Your task to perform on an android device: Go to Reddit.com Image 0: 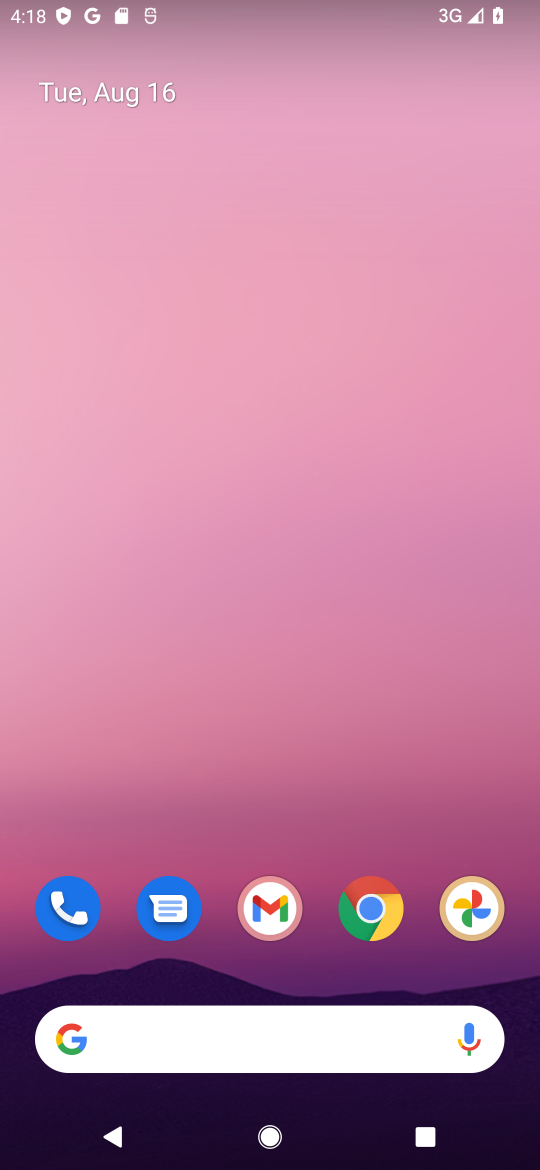
Step 0: click (362, 898)
Your task to perform on an android device: Go to Reddit.com Image 1: 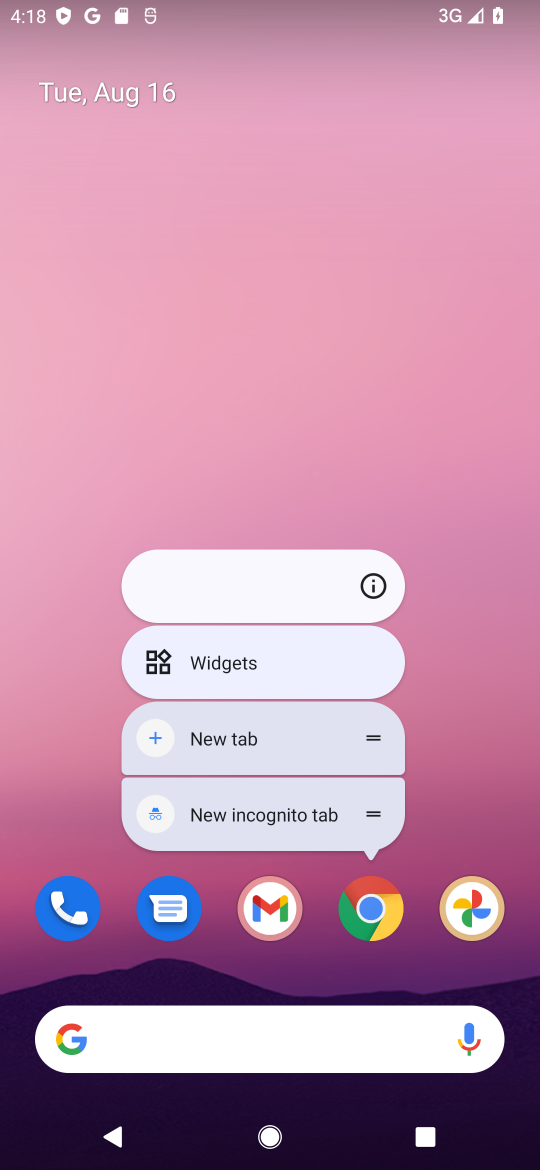
Step 1: click (388, 907)
Your task to perform on an android device: Go to Reddit.com Image 2: 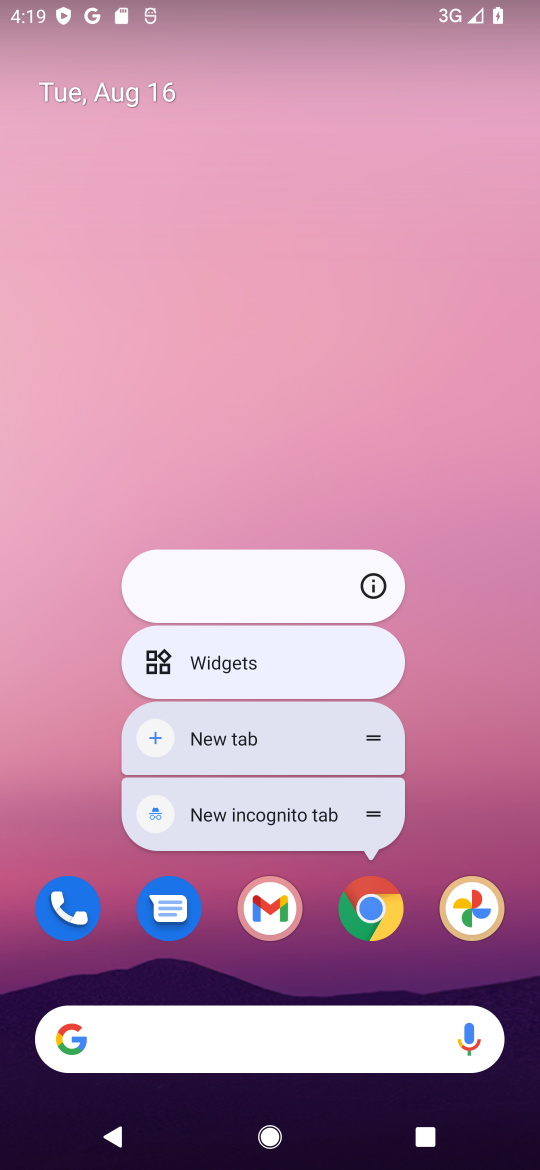
Step 2: click (366, 914)
Your task to perform on an android device: Go to Reddit.com Image 3: 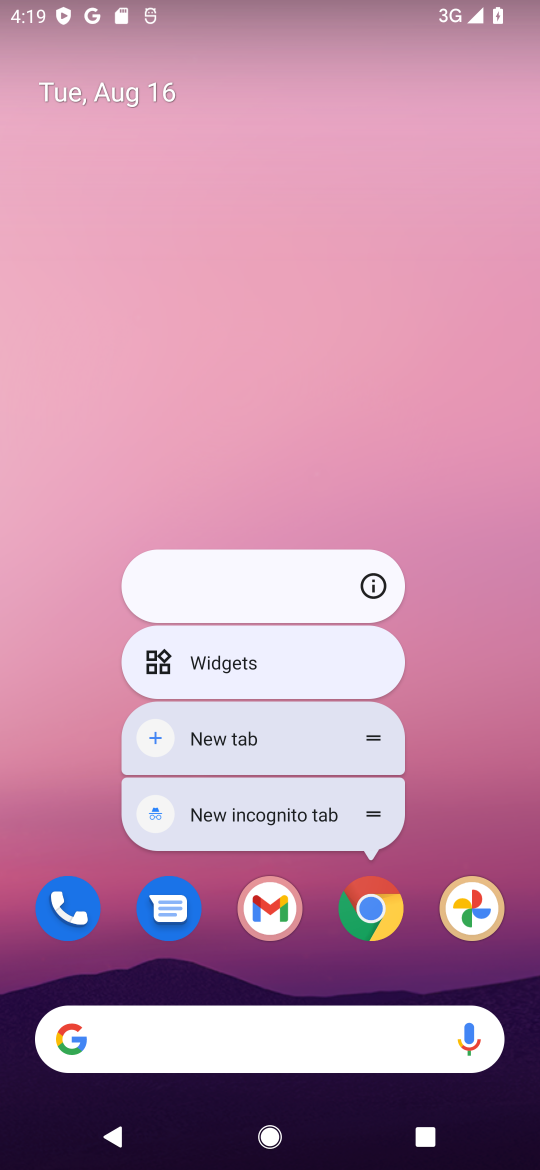
Step 3: click (372, 907)
Your task to perform on an android device: Go to Reddit.com Image 4: 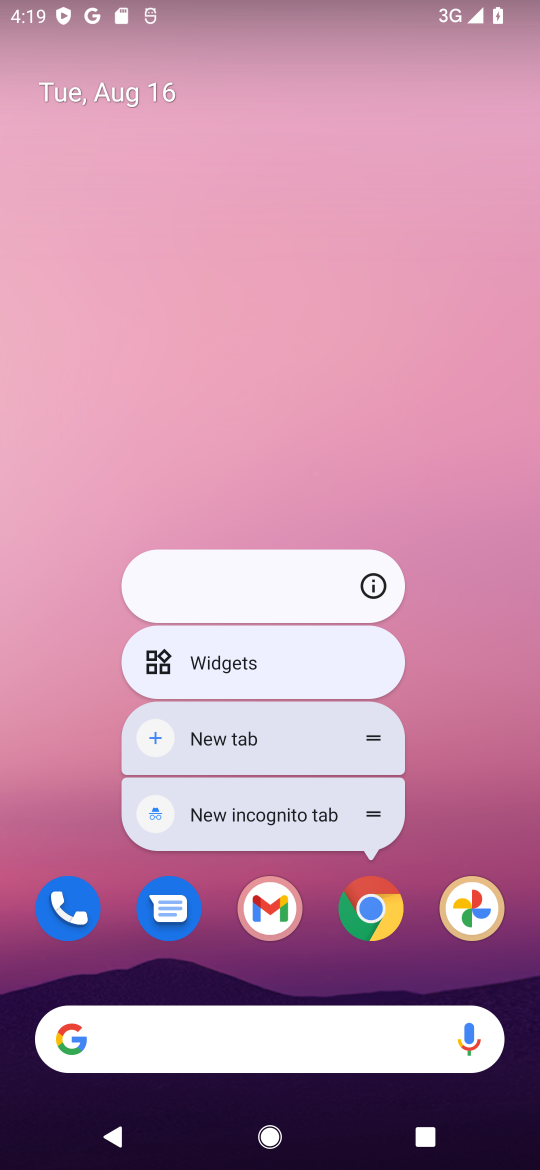
Step 4: click (384, 902)
Your task to perform on an android device: Go to Reddit.com Image 5: 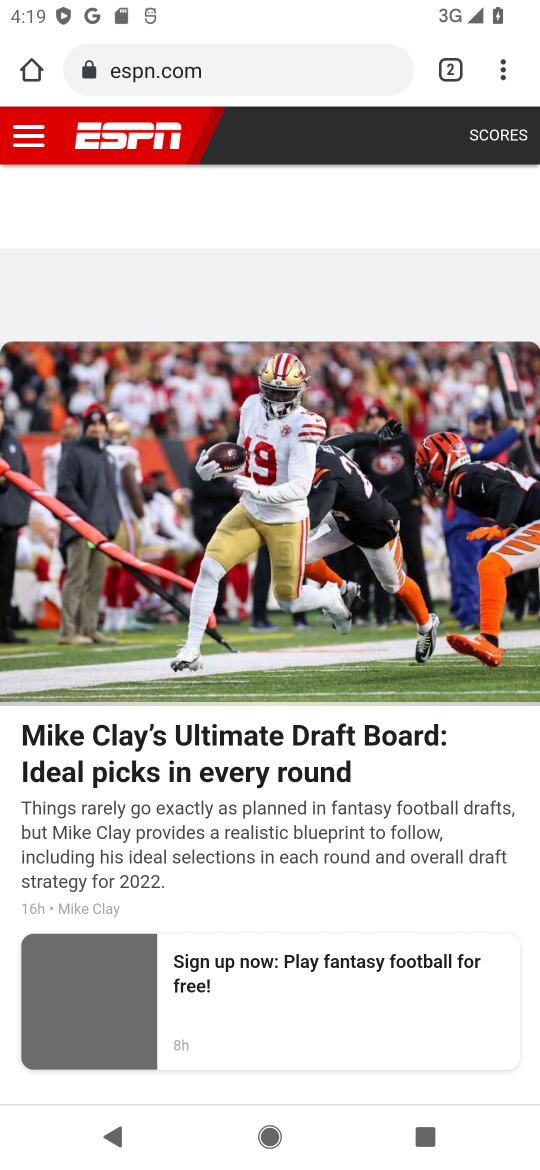
Step 5: click (457, 66)
Your task to perform on an android device: Go to Reddit.com Image 6: 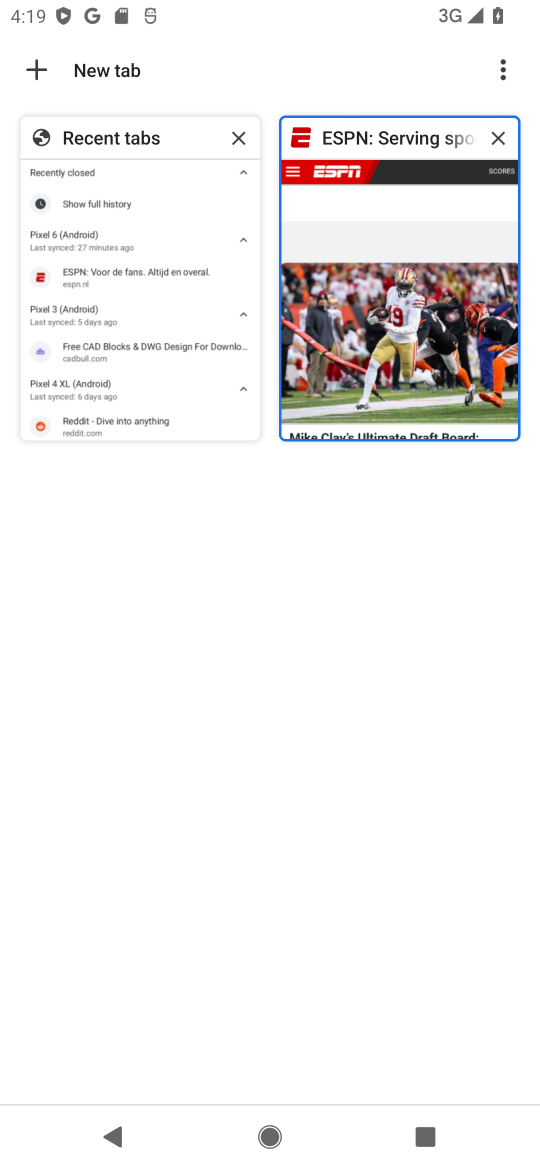
Step 6: click (200, 223)
Your task to perform on an android device: Go to Reddit.com Image 7: 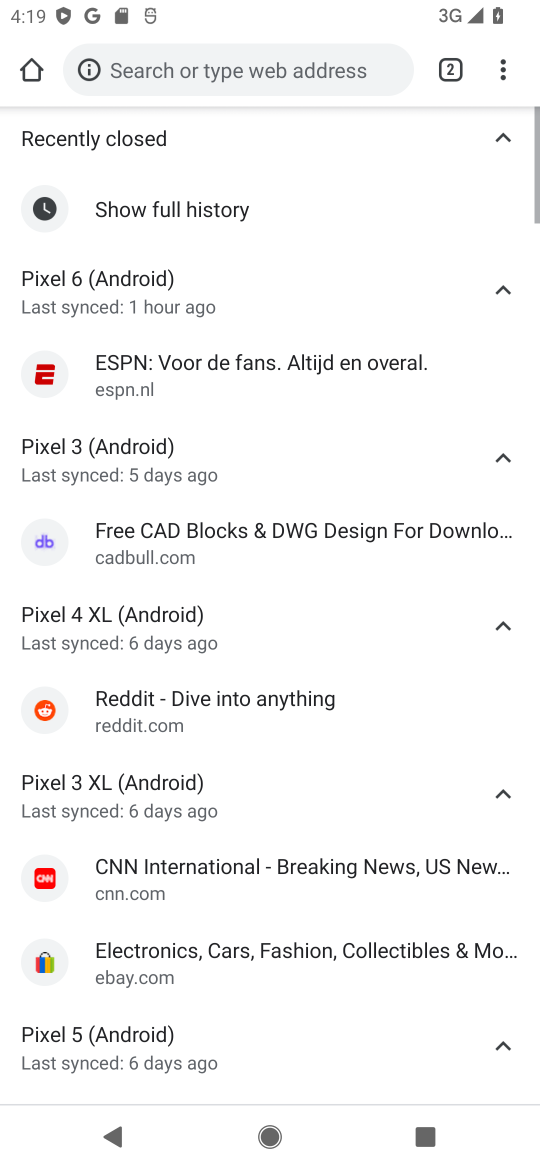
Step 7: click (209, 691)
Your task to perform on an android device: Go to Reddit.com Image 8: 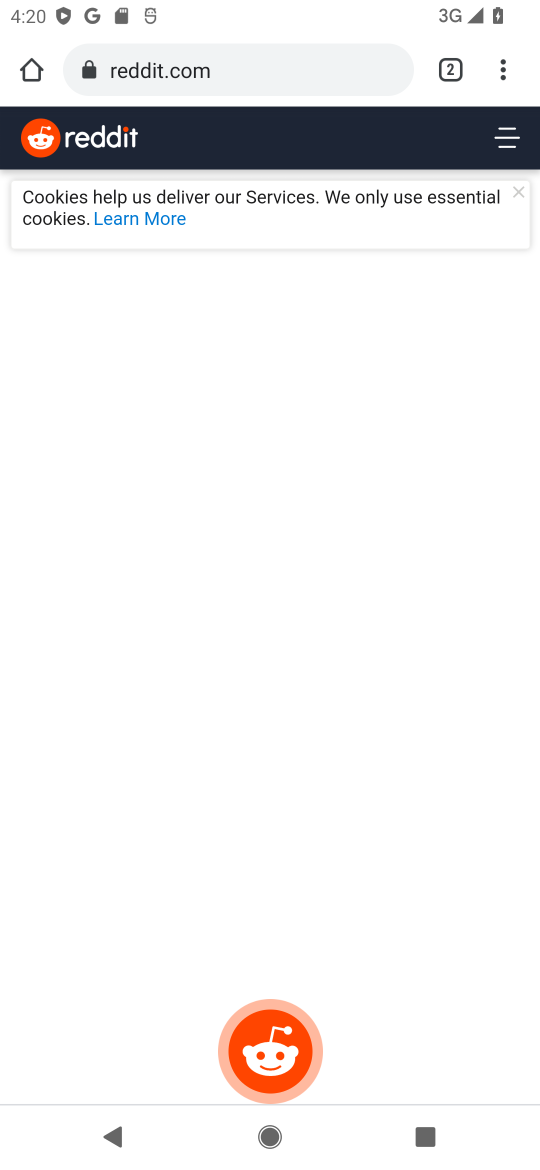
Step 8: task complete